Your task to perform on an android device: Open the stopwatch Image 0: 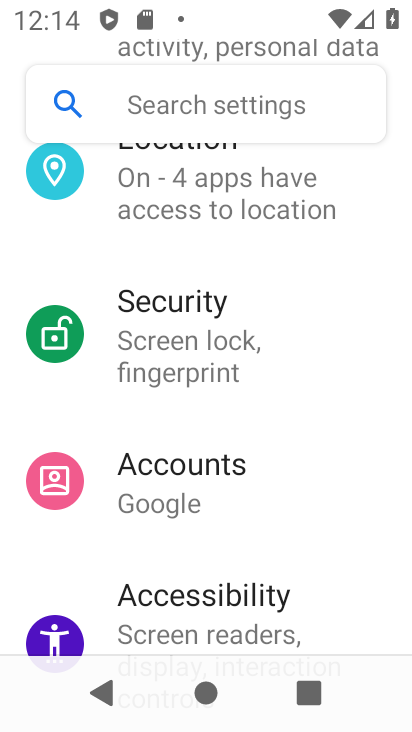
Step 0: press home button
Your task to perform on an android device: Open the stopwatch Image 1: 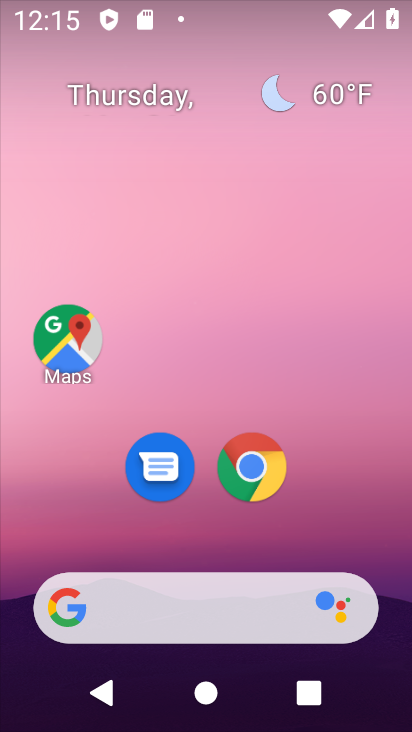
Step 1: drag from (207, 542) to (264, 0)
Your task to perform on an android device: Open the stopwatch Image 2: 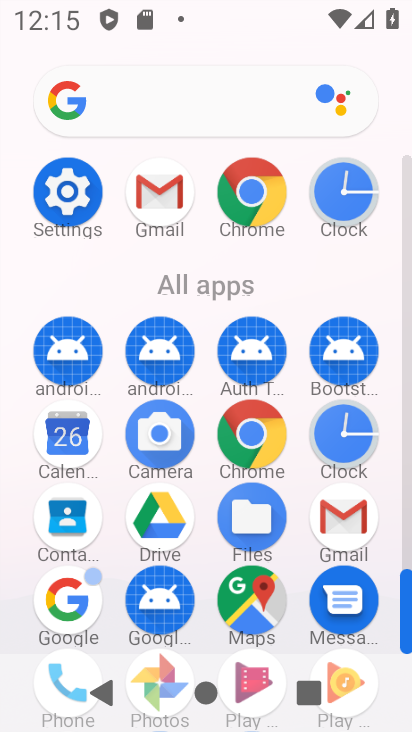
Step 2: click (351, 445)
Your task to perform on an android device: Open the stopwatch Image 3: 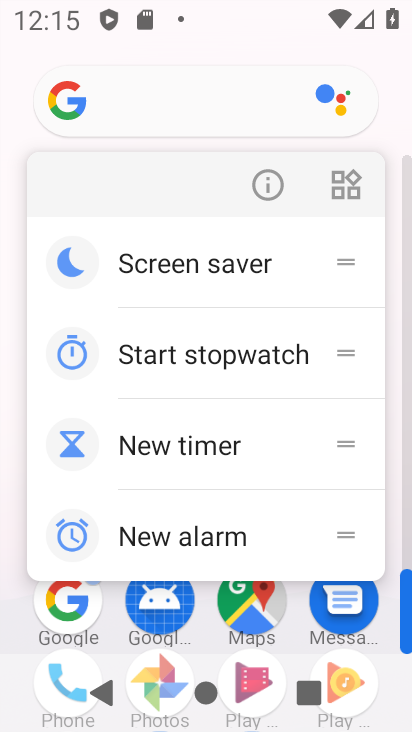
Step 3: click (348, 440)
Your task to perform on an android device: Open the stopwatch Image 4: 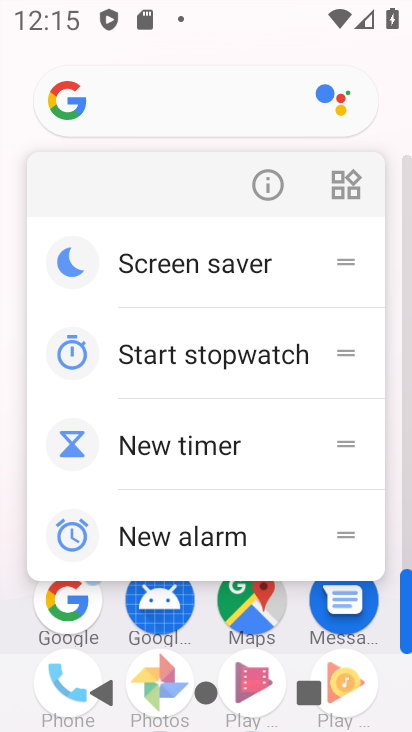
Step 4: click (254, 340)
Your task to perform on an android device: Open the stopwatch Image 5: 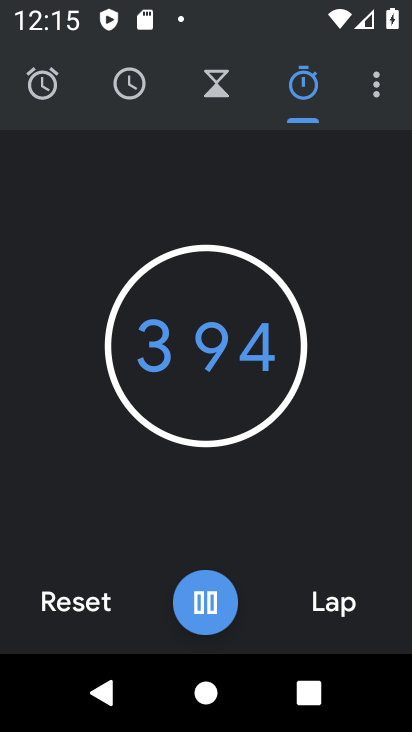
Step 5: task complete